Your task to perform on an android device: turn on translation in the chrome app Image 0: 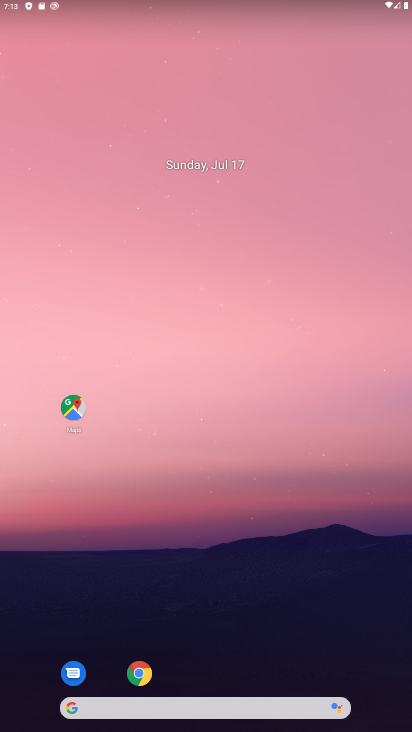
Step 0: drag from (232, 659) to (156, 15)
Your task to perform on an android device: turn on translation in the chrome app Image 1: 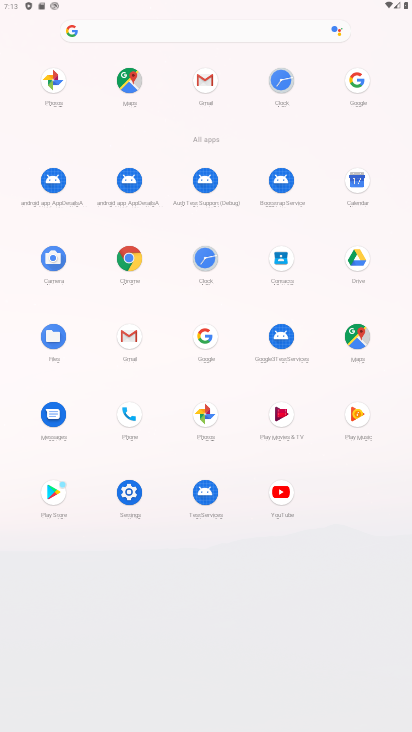
Step 1: click (123, 255)
Your task to perform on an android device: turn on translation in the chrome app Image 2: 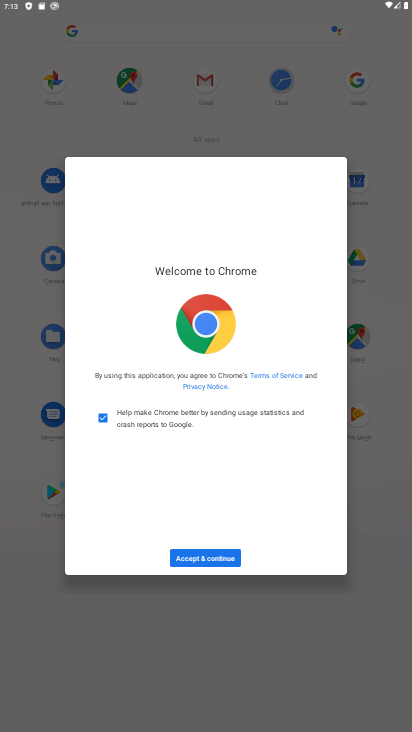
Step 2: click (192, 560)
Your task to perform on an android device: turn on translation in the chrome app Image 3: 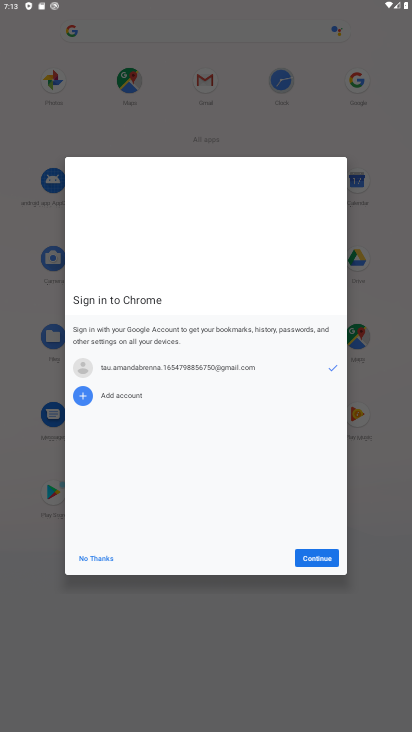
Step 3: click (104, 561)
Your task to perform on an android device: turn on translation in the chrome app Image 4: 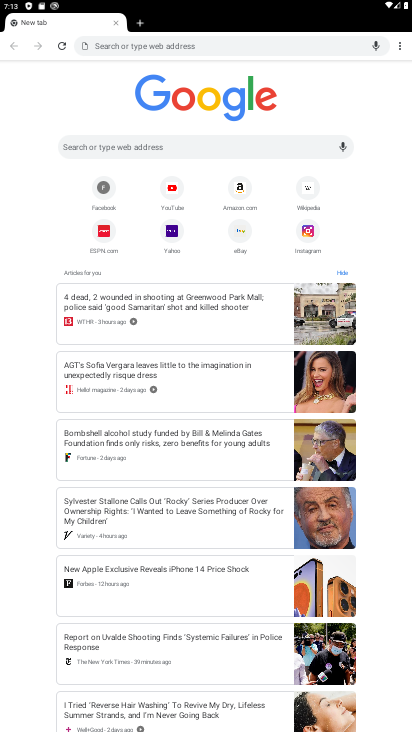
Step 4: drag from (396, 46) to (296, 210)
Your task to perform on an android device: turn on translation in the chrome app Image 5: 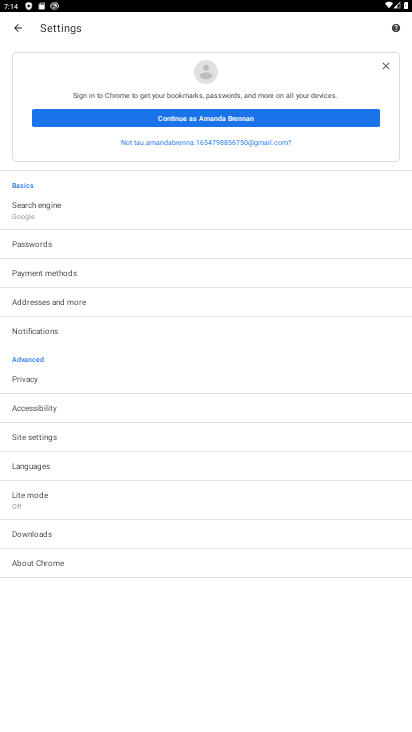
Step 5: click (56, 469)
Your task to perform on an android device: turn on translation in the chrome app Image 6: 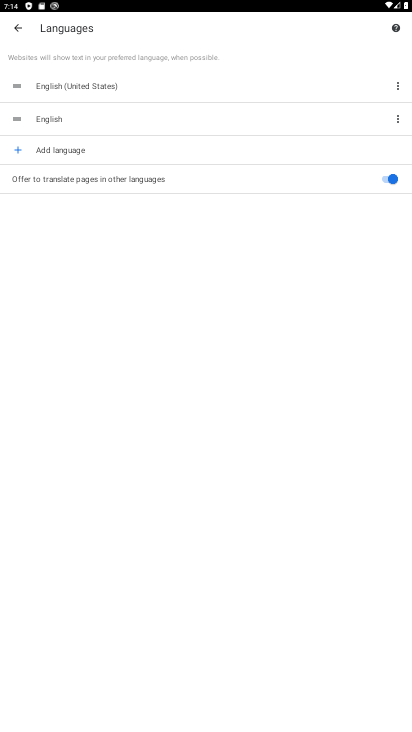
Step 6: task complete